Your task to perform on an android device: Open Google Maps Image 0: 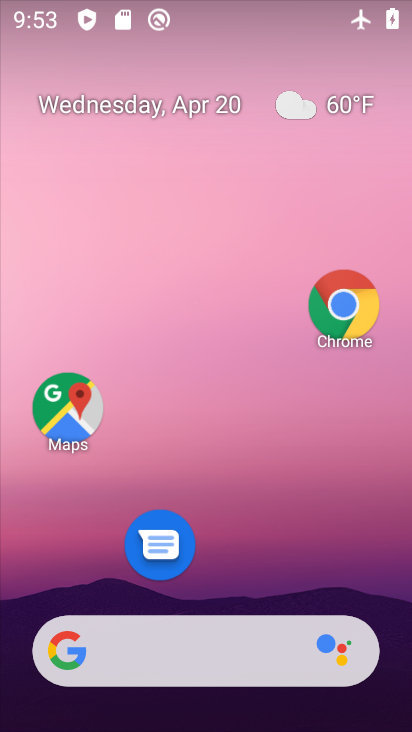
Step 0: drag from (270, 620) to (287, 345)
Your task to perform on an android device: Open Google Maps Image 1: 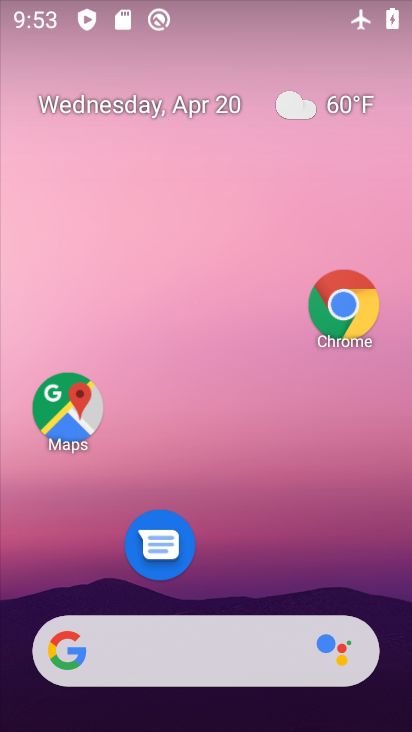
Step 1: drag from (209, 624) to (310, 102)
Your task to perform on an android device: Open Google Maps Image 2: 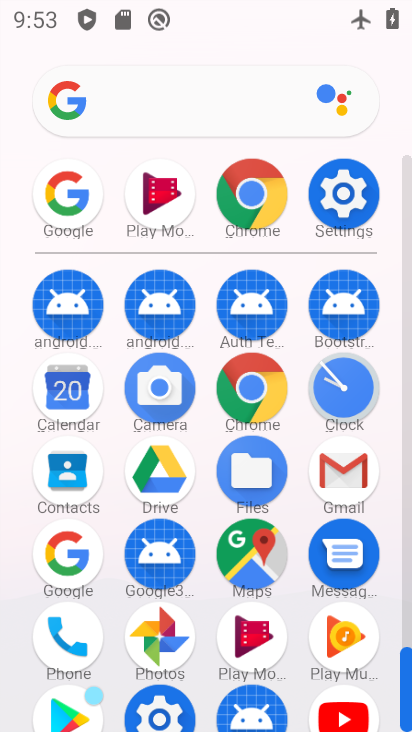
Step 2: click (256, 559)
Your task to perform on an android device: Open Google Maps Image 3: 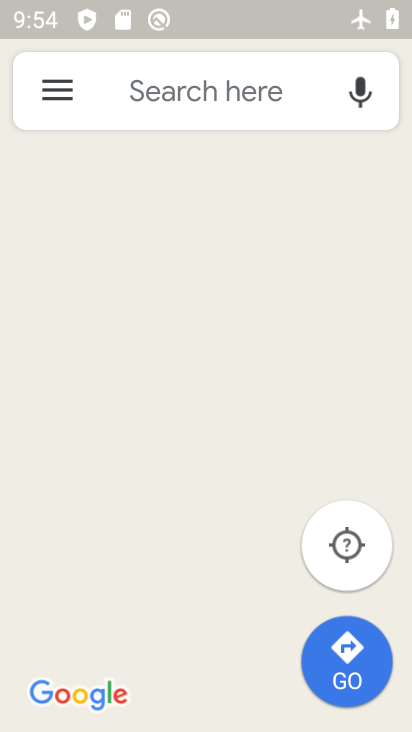
Step 3: task complete